Your task to perform on an android device: open a new tab in the chrome app Image 0: 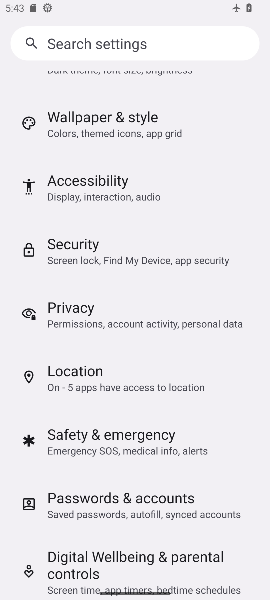
Step 0: press home button
Your task to perform on an android device: open a new tab in the chrome app Image 1: 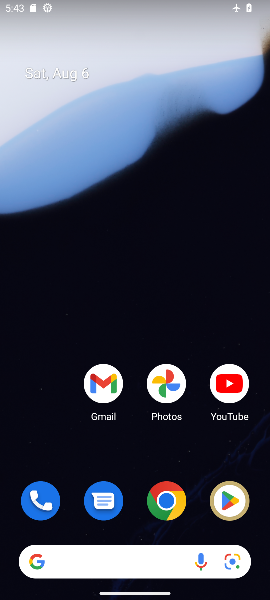
Step 1: click (161, 496)
Your task to perform on an android device: open a new tab in the chrome app Image 2: 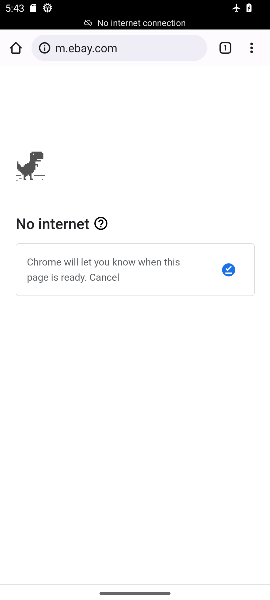
Step 2: click (251, 40)
Your task to perform on an android device: open a new tab in the chrome app Image 3: 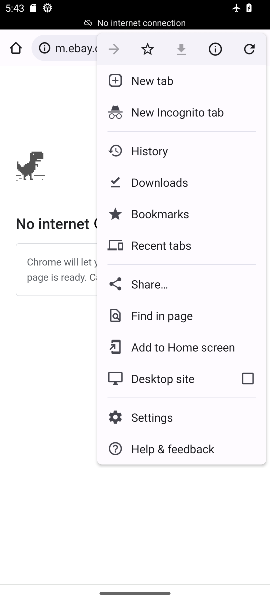
Step 3: click (179, 83)
Your task to perform on an android device: open a new tab in the chrome app Image 4: 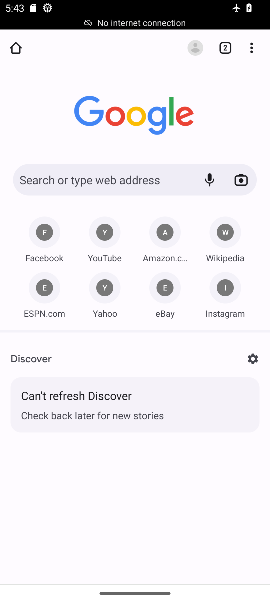
Step 4: task complete